Your task to perform on an android device: Open notification settings Image 0: 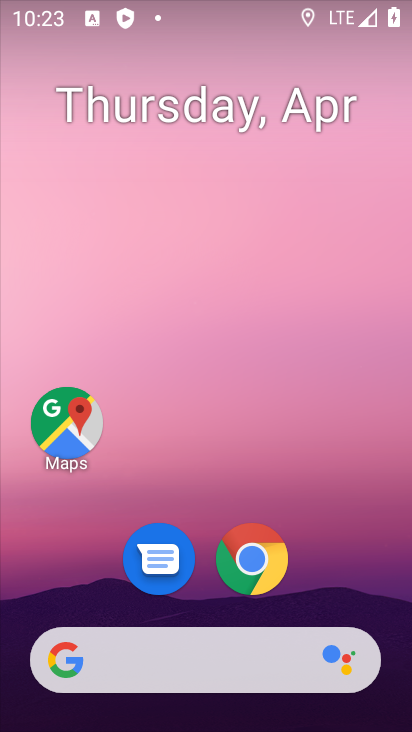
Step 0: drag from (271, 710) to (152, 194)
Your task to perform on an android device: Open notification settings Image 1: 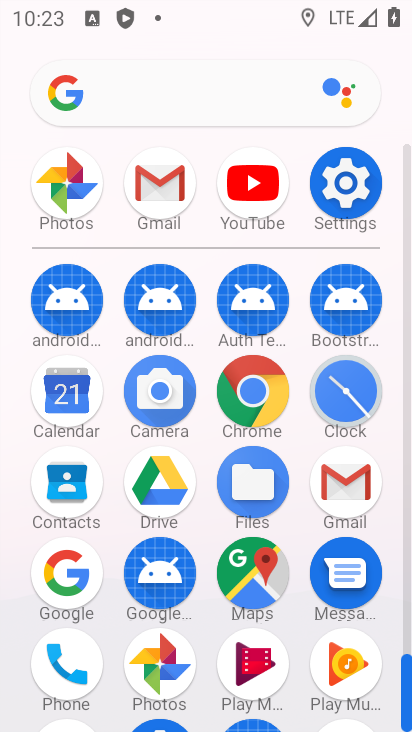
Step 1: click (354, 195)
Your task to perform on an android device: Open notification settings Image 2: 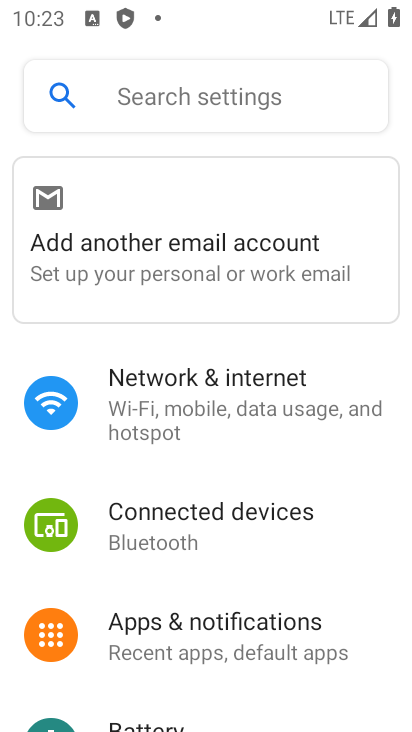
Step 2: click (250, 627)
Your task to perform on an android device: Open notification settings Image 3: 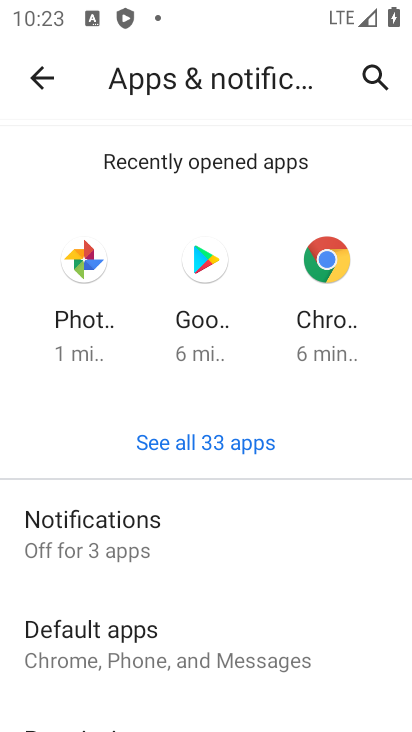
Step 3: task complete